Your task to perform on an android device: move an email to a new category in the gmail app Image 0: 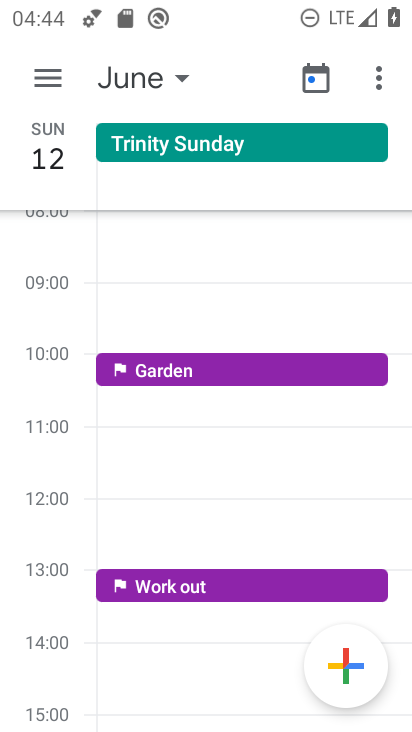
Step 0: press home button
Your task to perform on an android device: move an email to a new category in the gmail app Image 1: 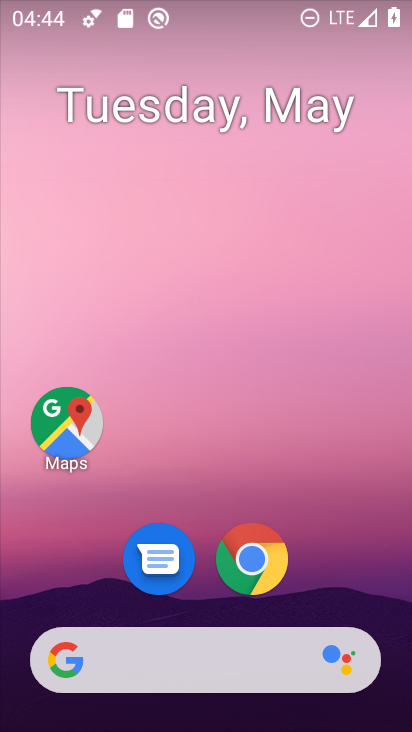
Step 1: drag from (245, 717) to (246, 102)
Your task to perform on an android device: move an email to a new category in the gmail app Image 2: 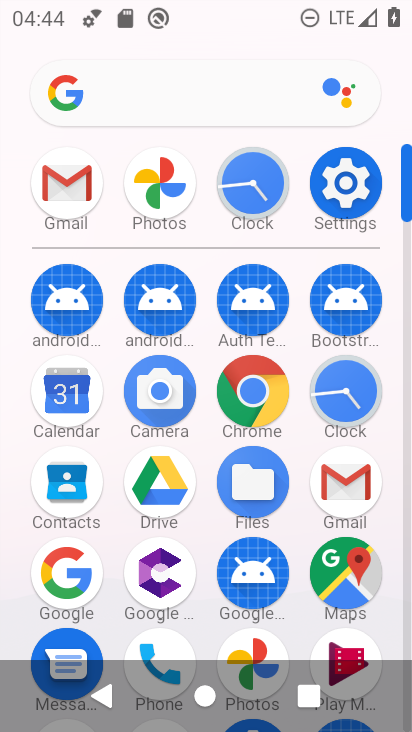
Step 2: click (355, 476)
Your task to perform on an android device: move an email to a new category in the gmail app Image 3: 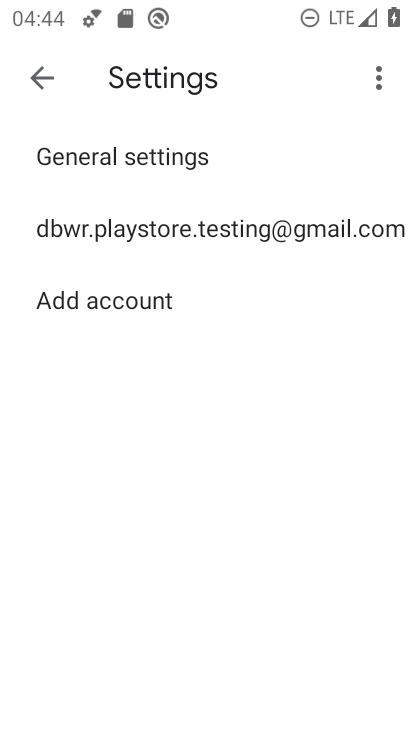
Step 3: click (123, 225)
Your task to perform on an android device: move an email to a new category in the gmail app Image 4: 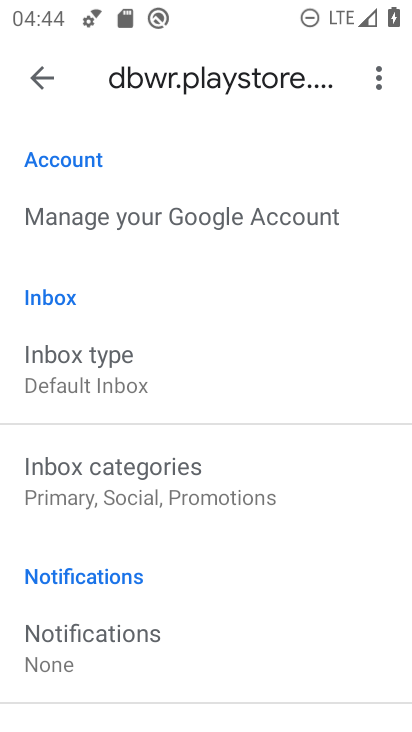
Step 4: click (33, 74)
Your task to perform on an android device: move an email to a new category in the gmail app Image 5: 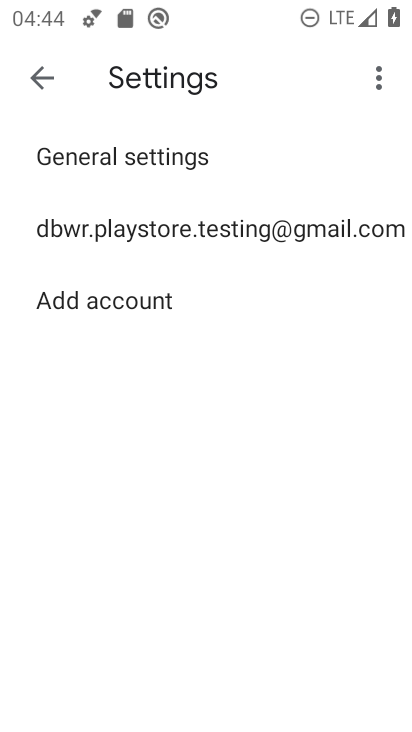
Step 5: click (33, 74)
Your task to perform on an android device: move an email to a new category in the gmail app Image 6: 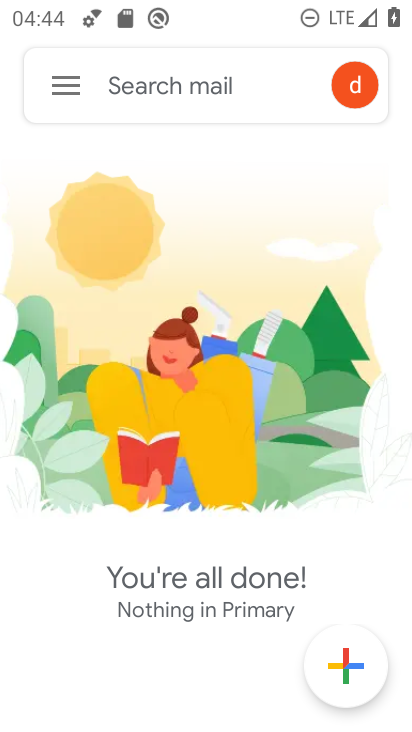
Step 6: task complete